Your task to perform on an android device: Go to wifi settings Image 0: 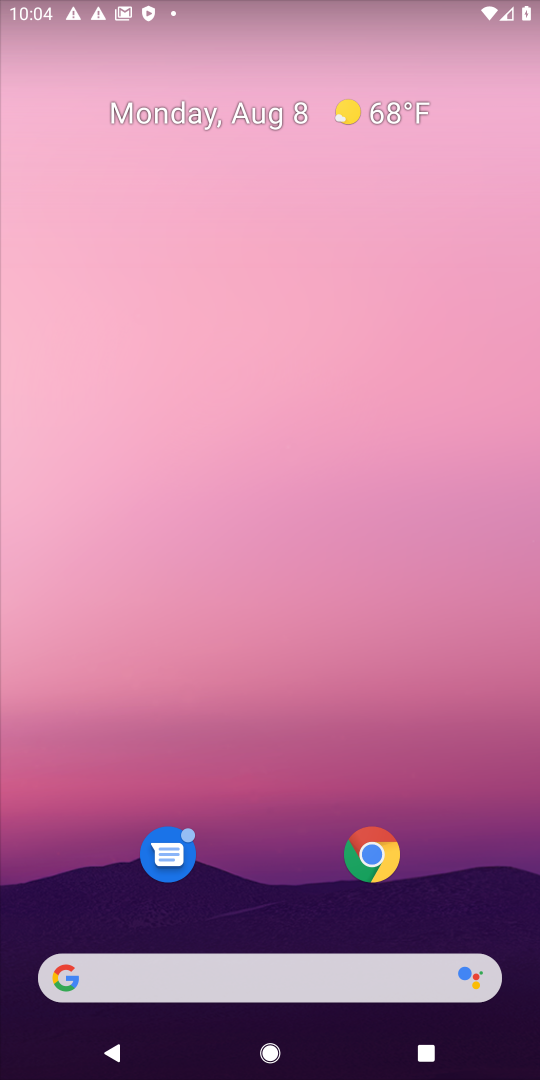
Step 0: drag from (335, 675) to (287, 332)
Your task to perform on an android device: Go to wifi settings Image 1: 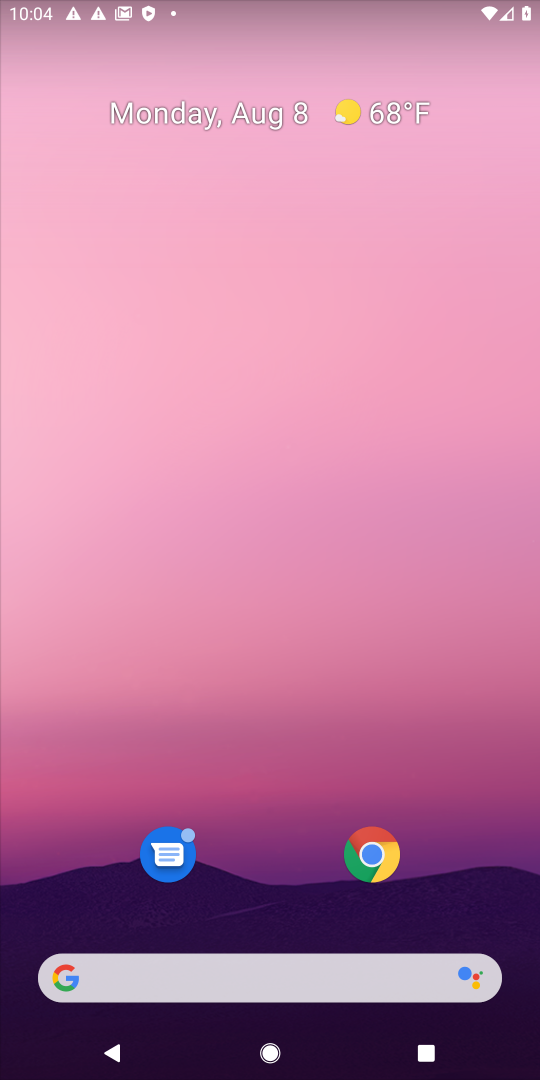
Step 1: drag from (302, 823) to (230, 175)
Your task to perform on an android device: Go to wifi settings Image 2: 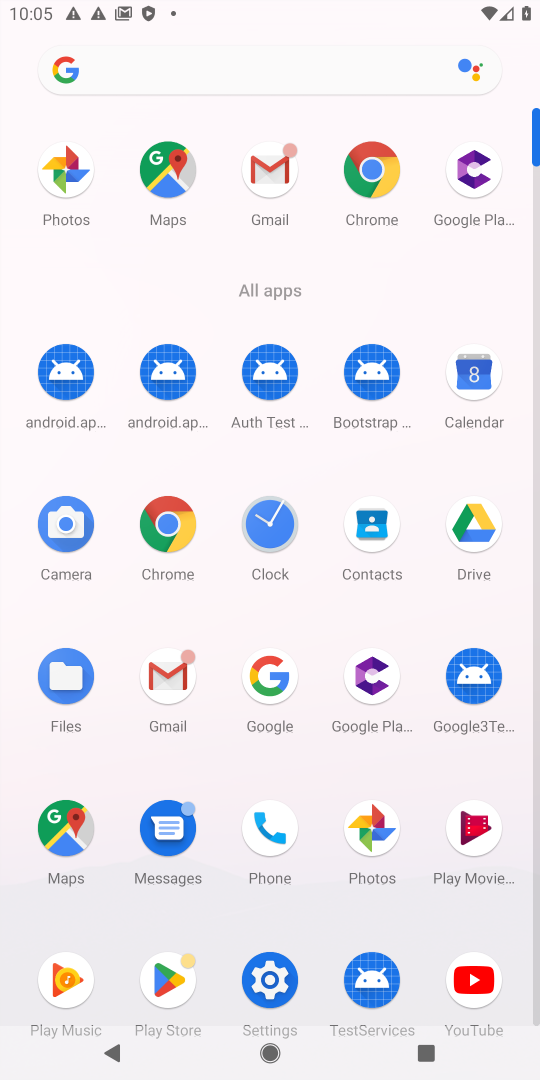
Step 2: click (276, 971)
Your task to perform on an android device: Go to wifi settings Image 3: 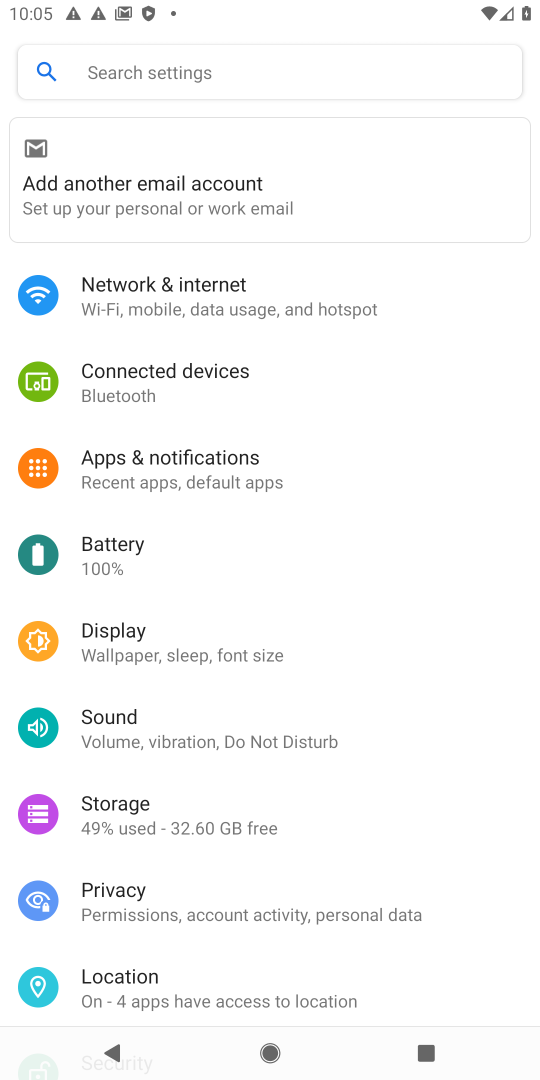
Step 3: task complete